Your task to perform on an android device: What's on the menu at IHOP? Image 0: 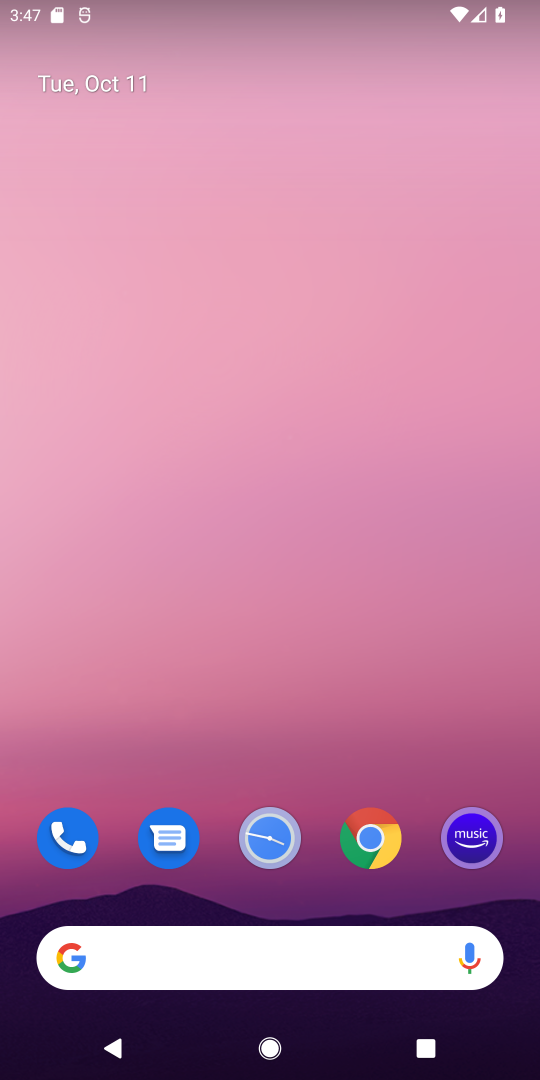
Step 0: click (357, 843)
Your task to perform on an android device: What's on the menu at IHOP? Image 1: 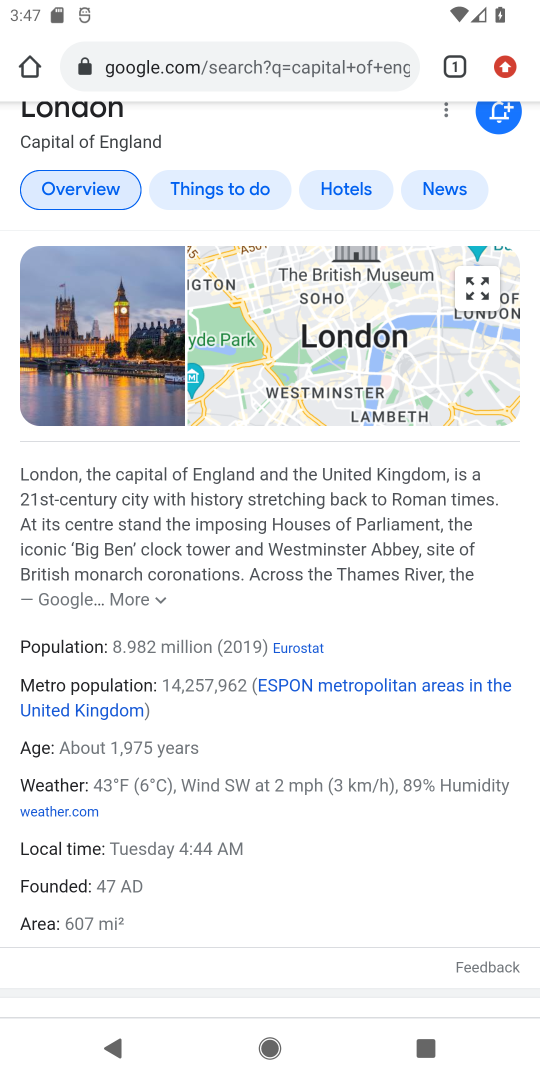
Step 1: click (191, 67)
Your task to perform on an android device: What's on the menu at IHOP? Image 2: 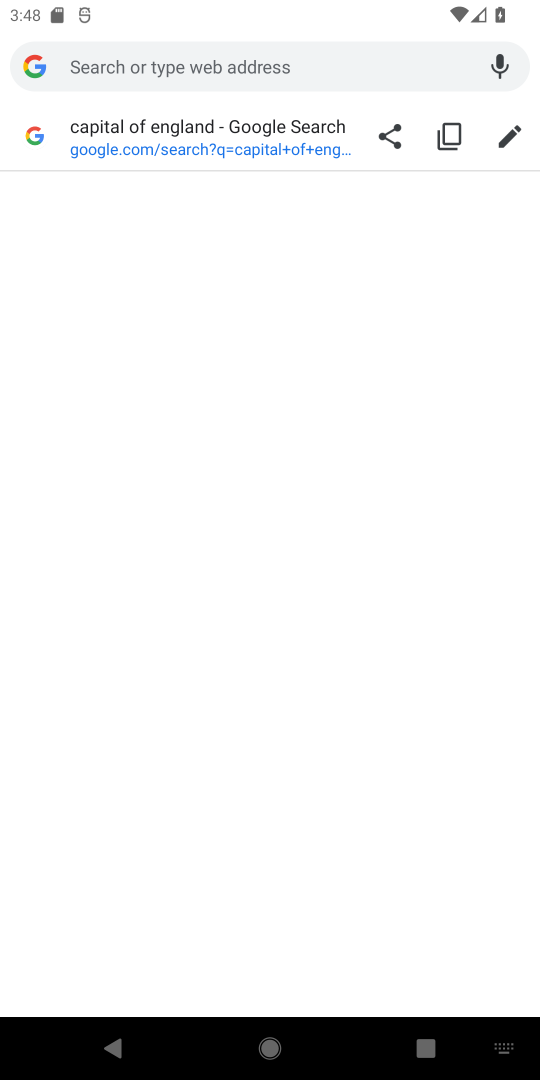
Step 2: type "menu on ihop"
Your task to perform on an android device: What's on the menu at IHOP? Image 3: 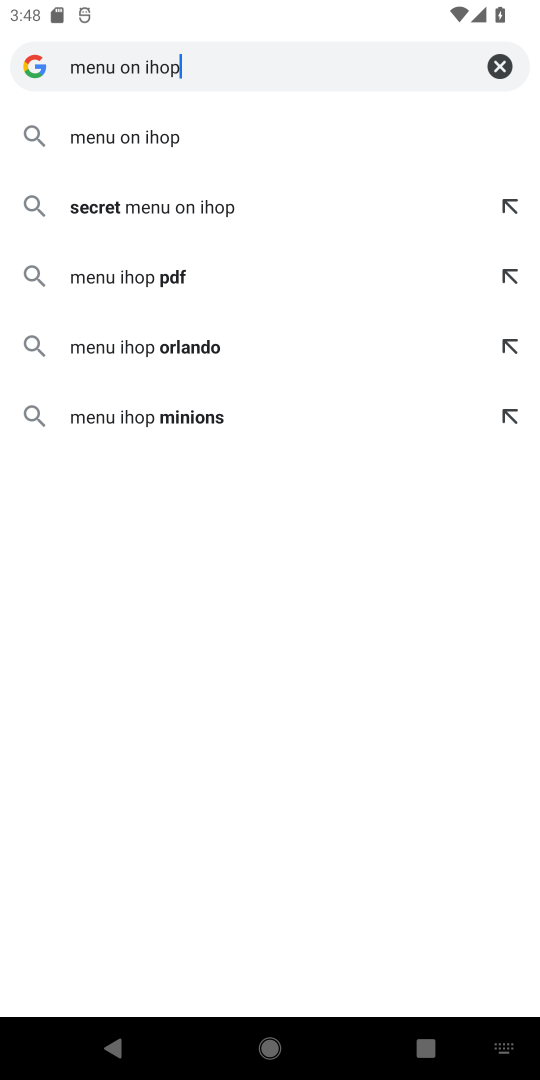
Step 3: click (156, 136)
Your task to perform on an android device: What's on the menu at IHOP? Image 4: 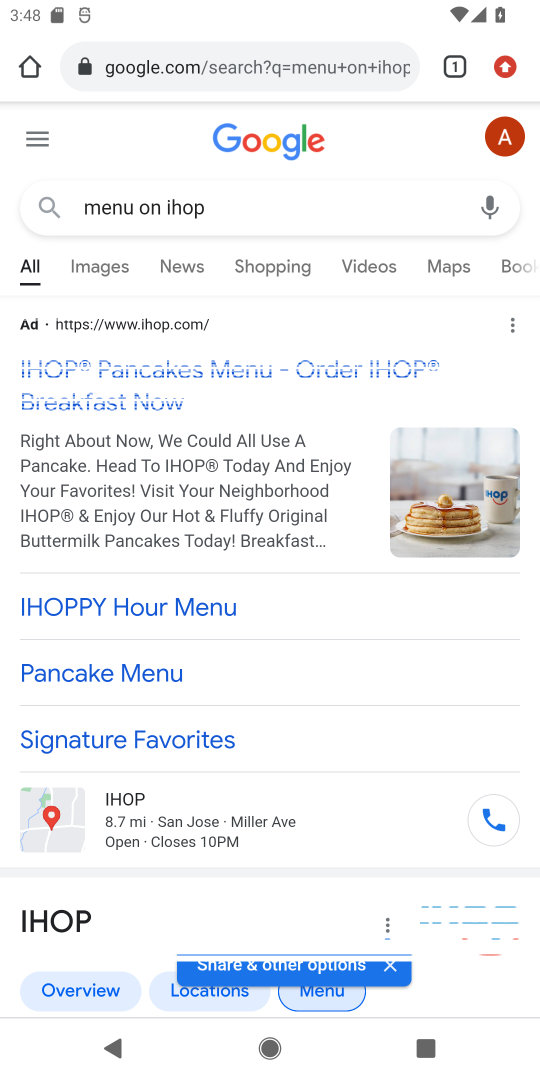
Step 4: drag from (333, 735) to (392, 286)
Your task to perform on an android device: What's on the menu at IHOP? Image 5: 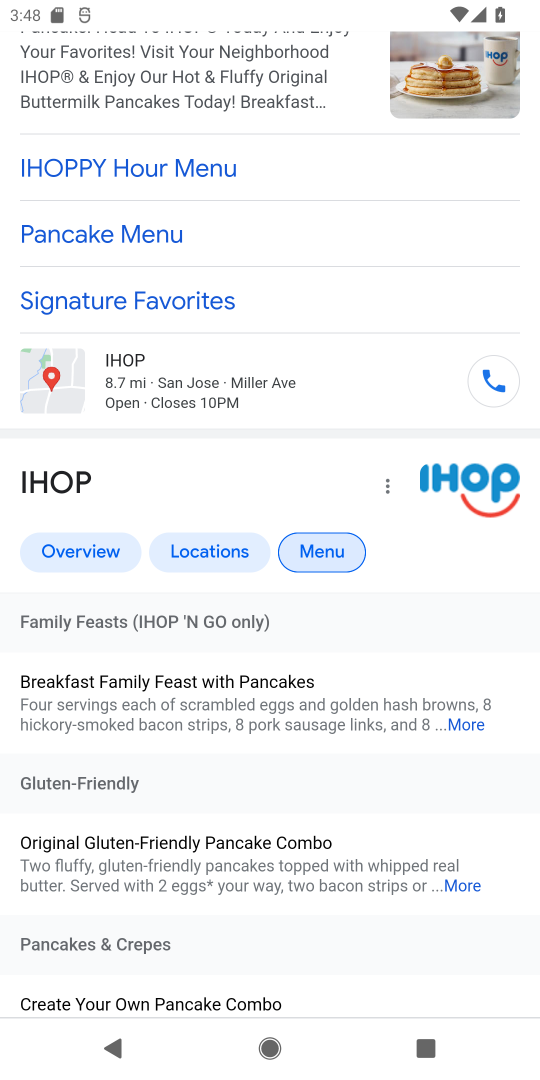
Step 5: click (333, 548)
Your task to perform on an android device: What's on the menu at IHOP? Image 6: 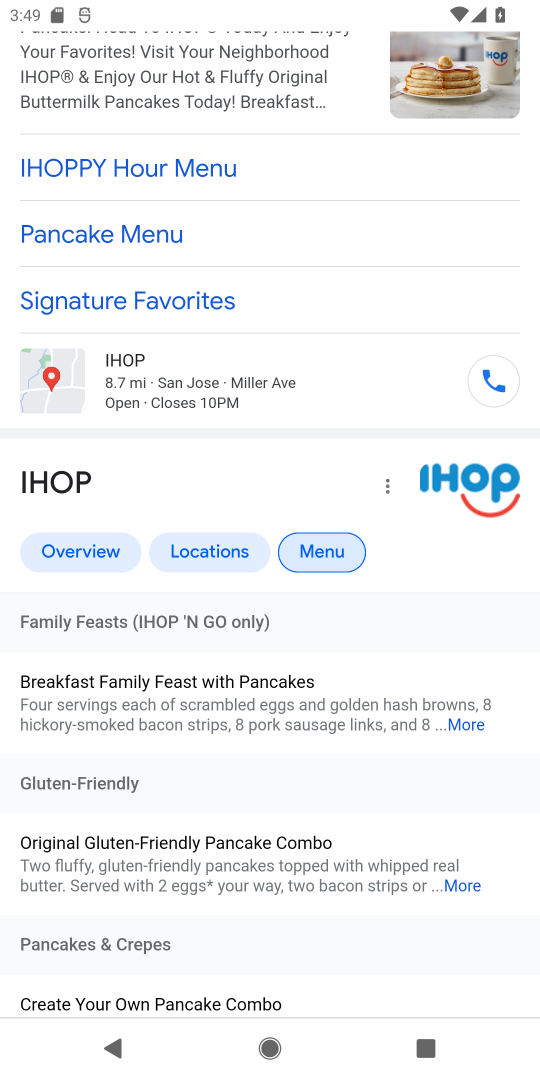
Step 6: click (27, 477)
Your task to perform on an android device: What's on the menu at IHOP? Image 7: 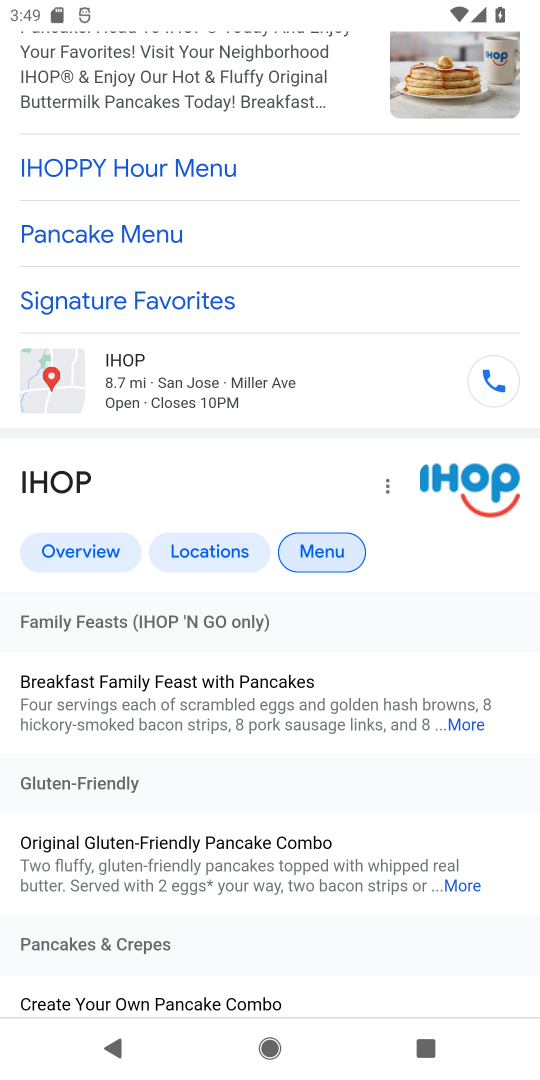
Step 7: click (41, 487)
Your task to perform on an android device: What's on the menu at IHOP? Image 8: 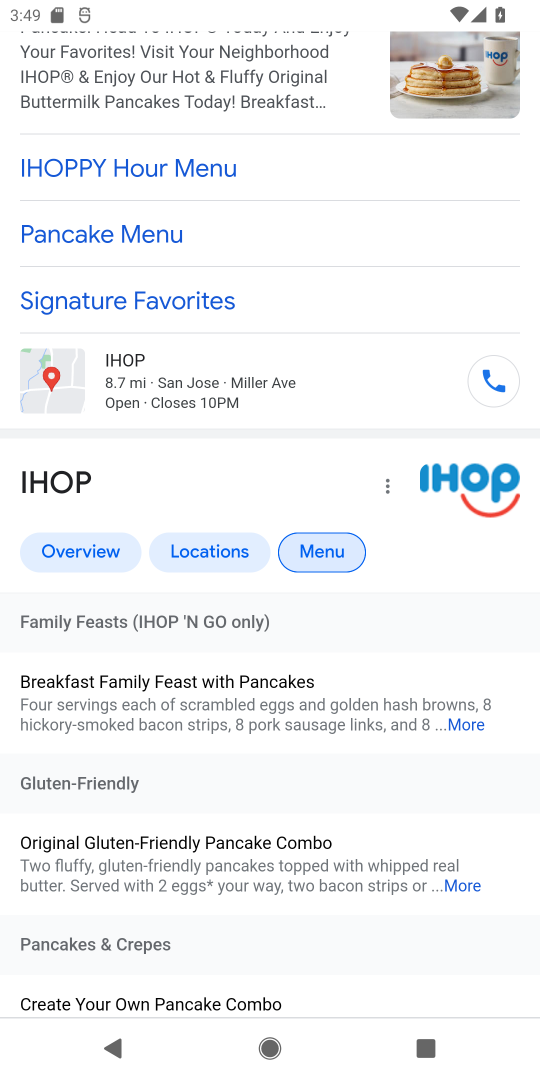
Step 8: drag from (231, 702) to (231, 402)
Your task to perform on an android device: What's on the menu at IHOP? Image 9: 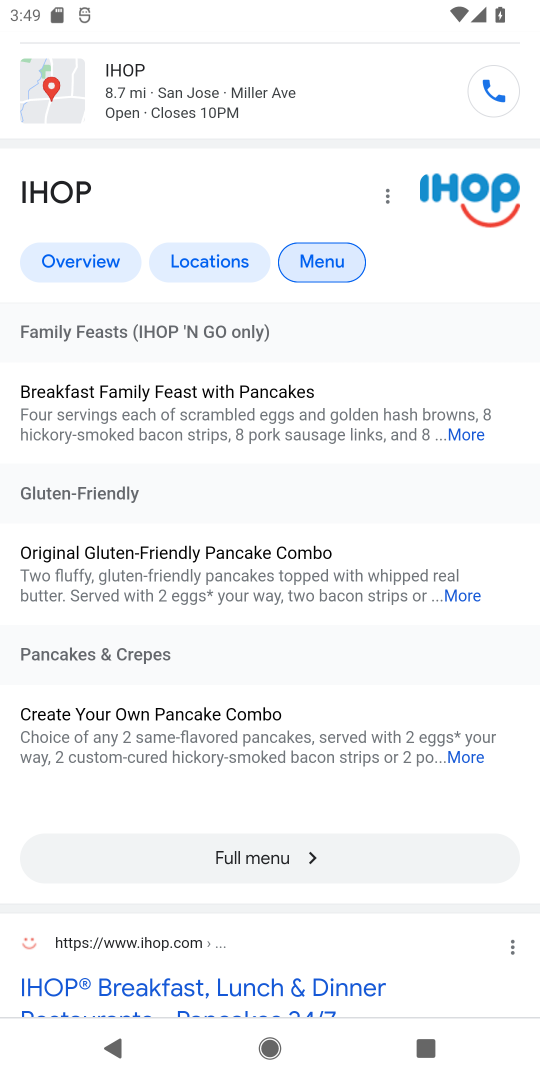
Step 9: click (273, 864)
Your task to perform on an android device: What's on the menu at IHOP? Image 10: 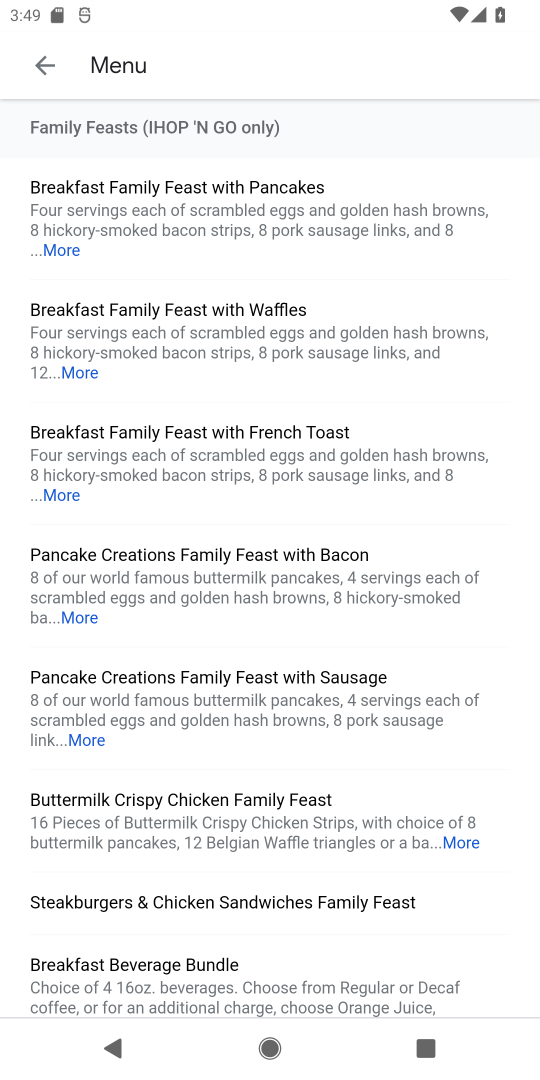
Step 10: task complete